Your task to perform on an android device: uninstall "Pandora - Music & Podcasts" Image 0: 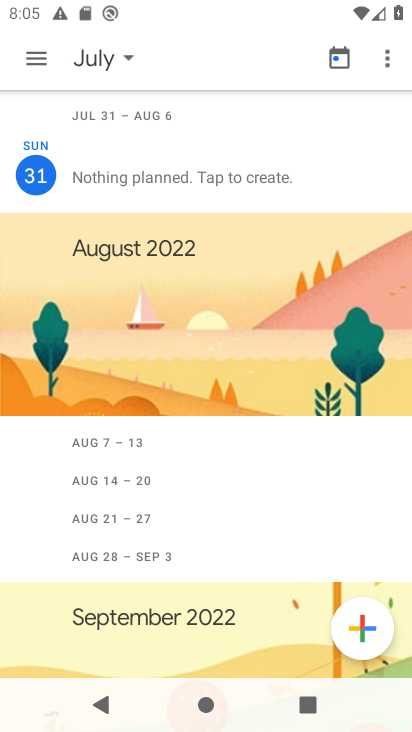
Step 0: press home button
Your task to perform on an android device: uninstall "Pandora - Music & Podcasts" Image 1: 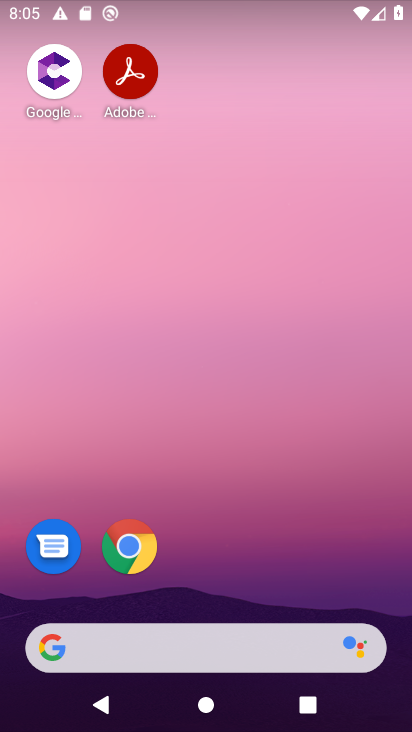
Step 1: press home button
Your task to perform on an android device: uninstall "Pandora - Music & Podcasts" Image 2: 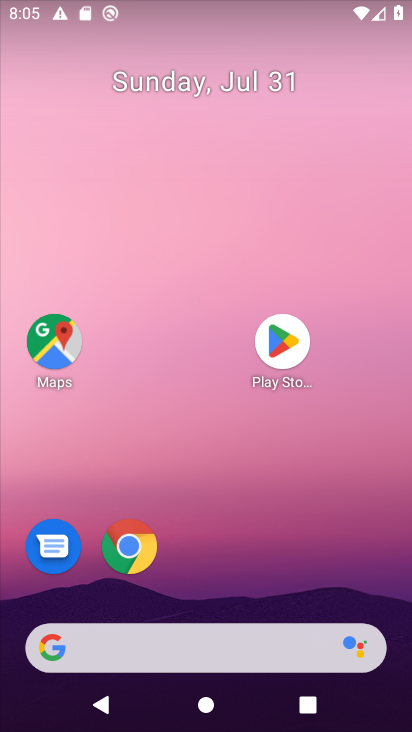
Step 2: click (285, 331)
Your task to perform on an android device: uninstall "Pandora - Music & Podcasts" Image 3: 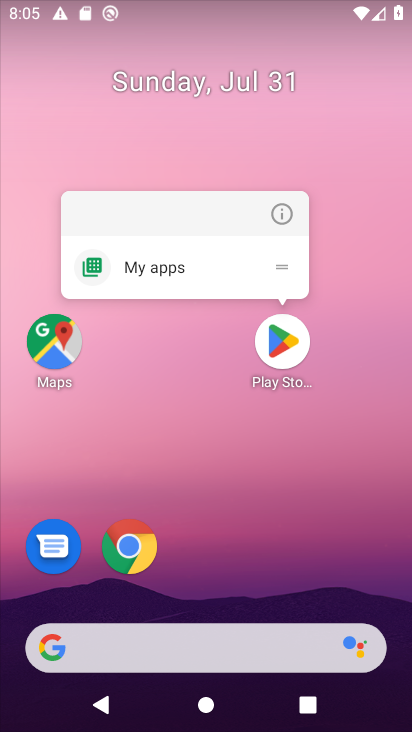
Step 3: click (275, 345)
Your task to perform on an android device: uninstall "Pandora - Music & Podcasts" Image 4: 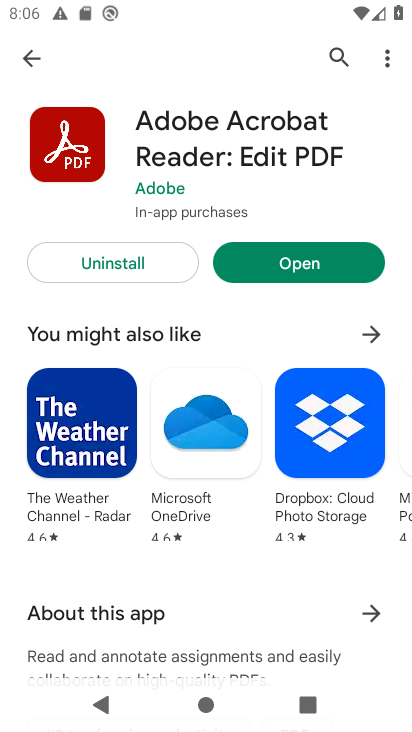
Step 4: click (333, 57)
Your task to perform on an android device: uninstall "Pandora - Music & Podcasts" Image 5: 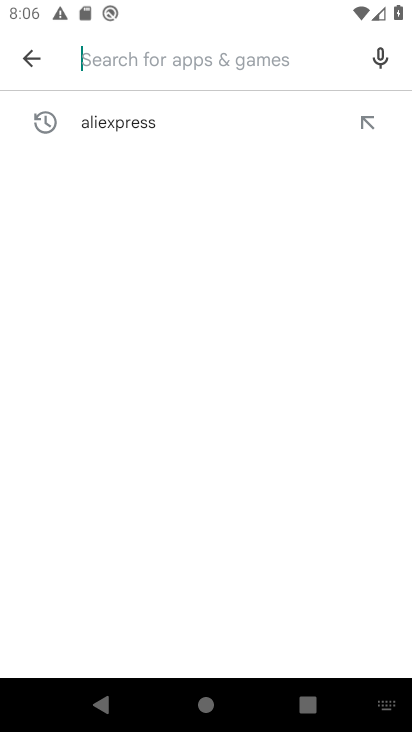
Step 5: type "Pandora - Music & Podcasts"
Your task to perform on an android device: uninstall "Pandora - Music & Podcasts" Image 6: 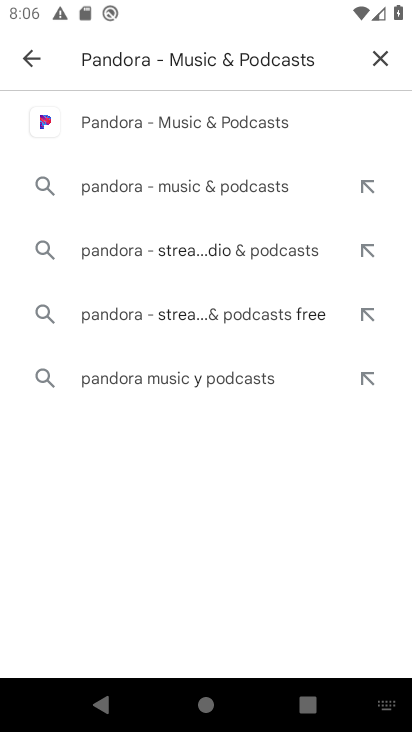
Step 6: click (114, 114)
Your task to perform on an android device: uninstall "Pandora - Music & Podcasts" Image 7: 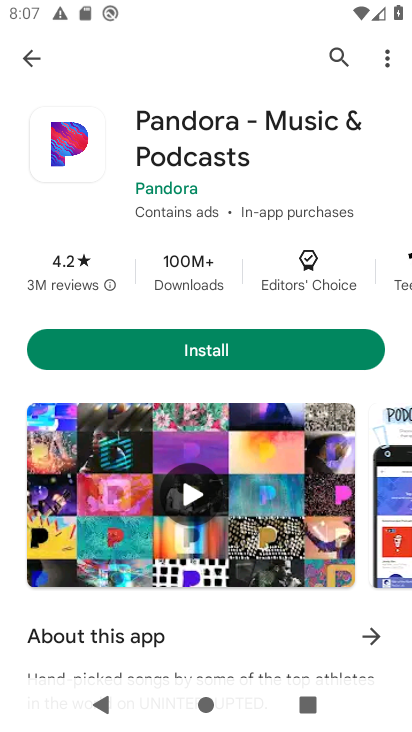
Step 7: task complete